Your task to perform on an android device: open app "Microsoft Authenticator" Image 0: 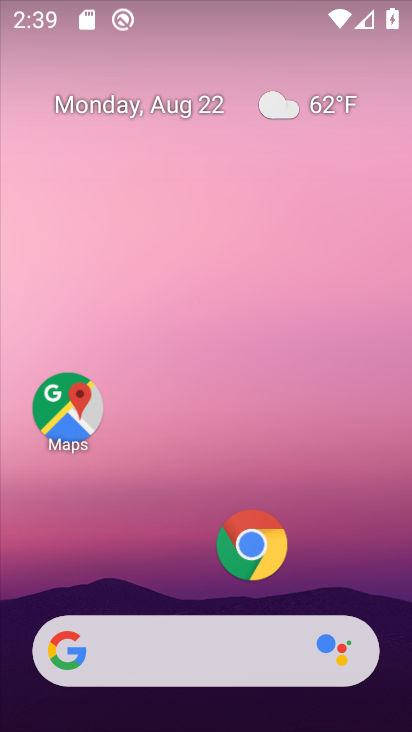
Step 0: drag from (150, 495) to (200, 47)
Your task to perform on an android device: open app "Microsoft Authenticator" Image 1: 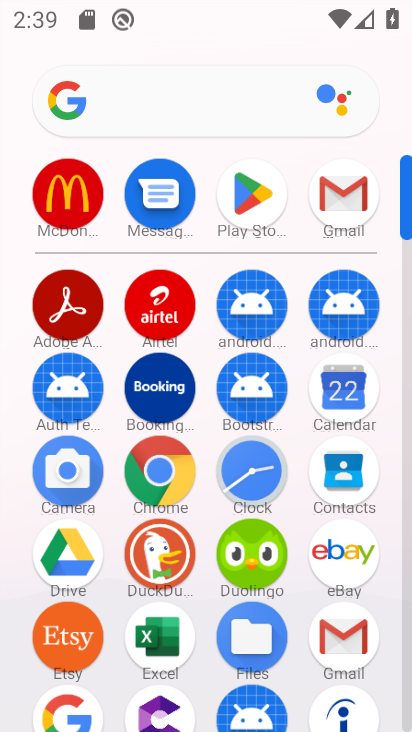
Step 1: click (255, 181)
Your task to perform on an android device: open app "Microsoft Authenticator" Image 2: 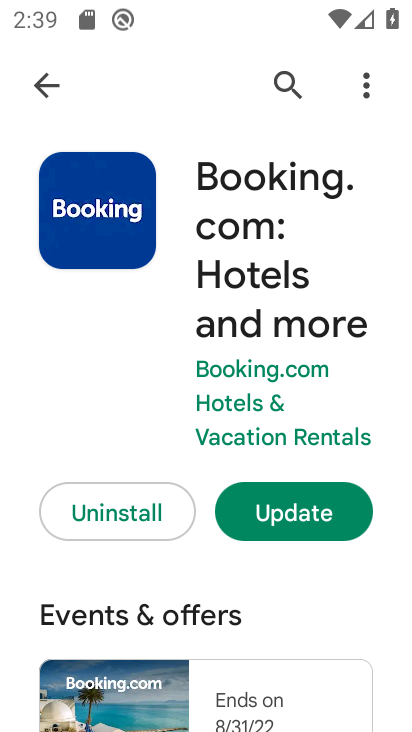
Step 2: click (274, 83)
Your task to perform on an android device: open app "Microsoft Authenticator" Image 3: 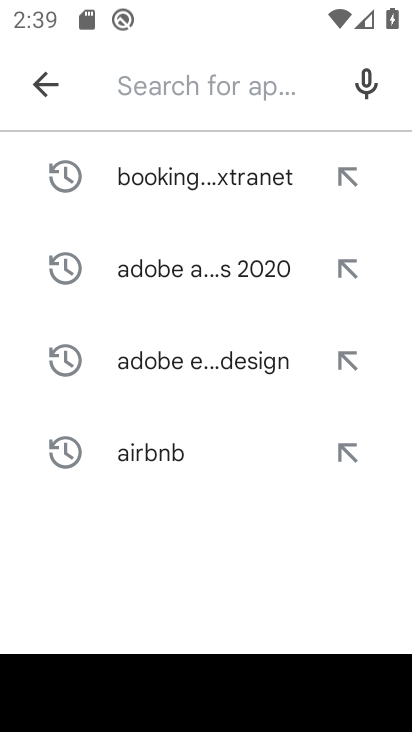
Step 3: click (176, 76)
Your task to perform on an android device: open app "Microsoft Authenticator" Image 4: 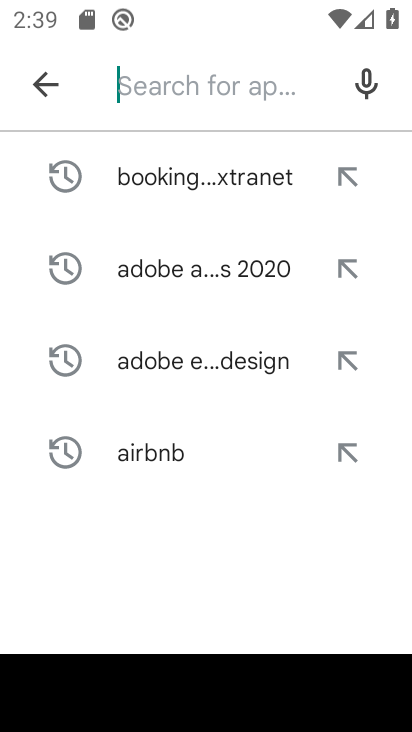
Step 4: type "Microsoft Authenticator"
Your task to perform on an android device: open app "Microsoft Authenticator" Image 5: 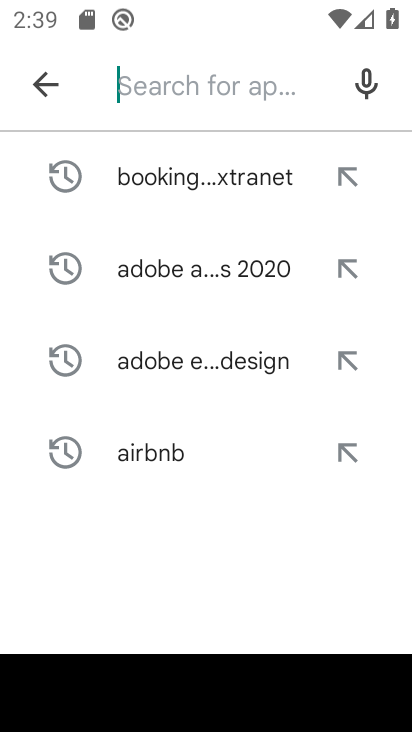
Step 5: click (264, 591)
Your task to perform on an android device: open app "Microsoft Authenticator" Image 6: 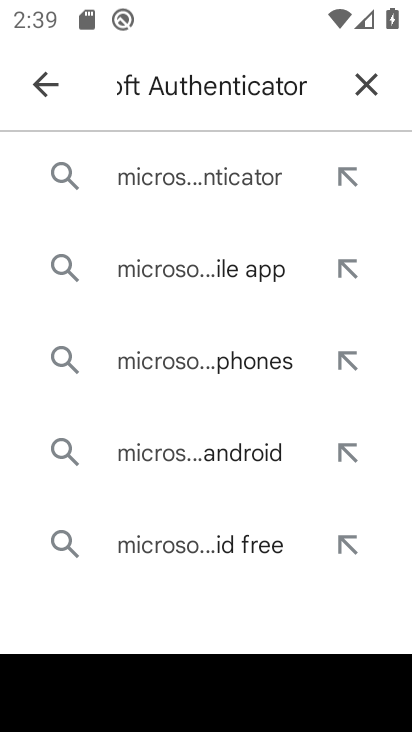
Step 6: click (204, 190)
Your task to perform on an android device: open app "Microsoft Authenticator" Image 7: 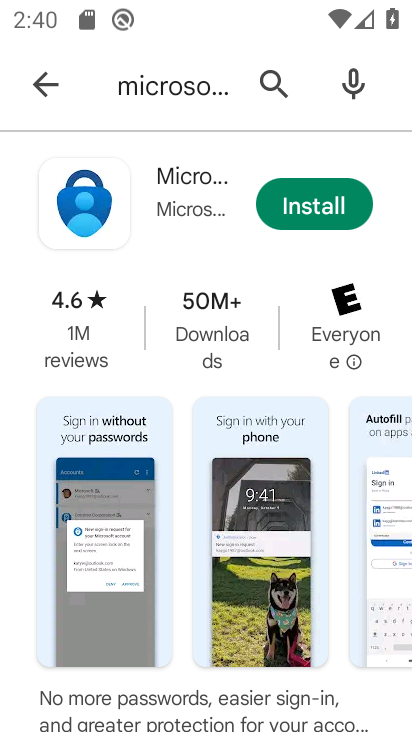
Step 7: task complete